Your task to perform on an android device: turn off picture-in-picture Image 0: 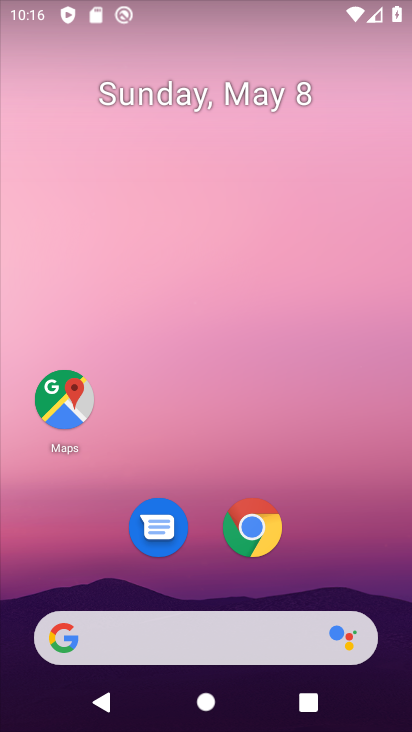
Step 0: drag from (323, 513) to (290, 135)
Your task to perform on an android device: turn off picture-in-picture Image 1: 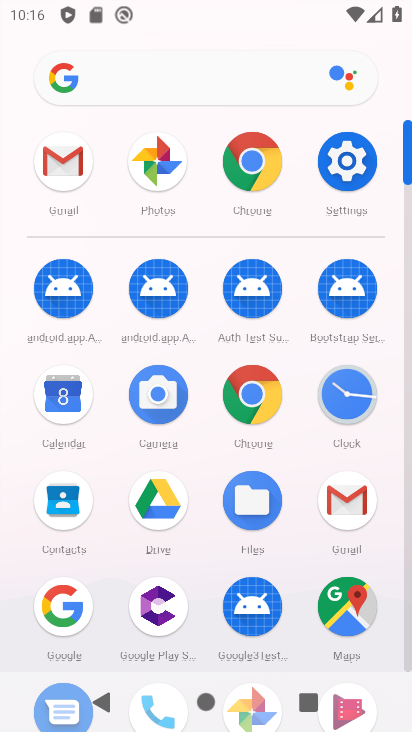
Step 1: click (364, 161)
Your task to perform on an android device: turn off picture-in-picture Image 2: 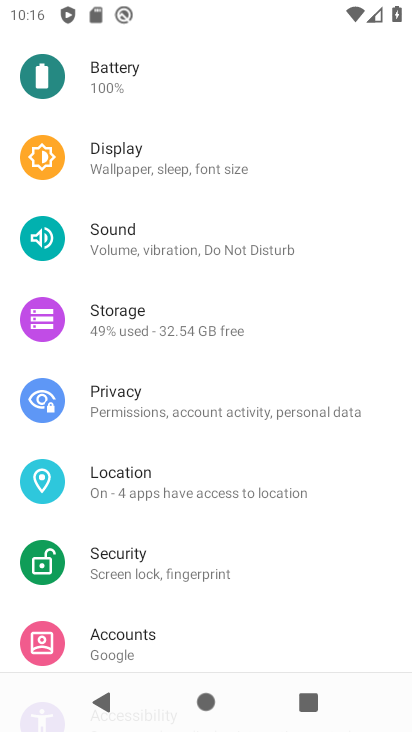
Step 2: drag from (297, 314) to (287, 580)
Your task to perform on an android device: turn off picture-in-picture Image 3: 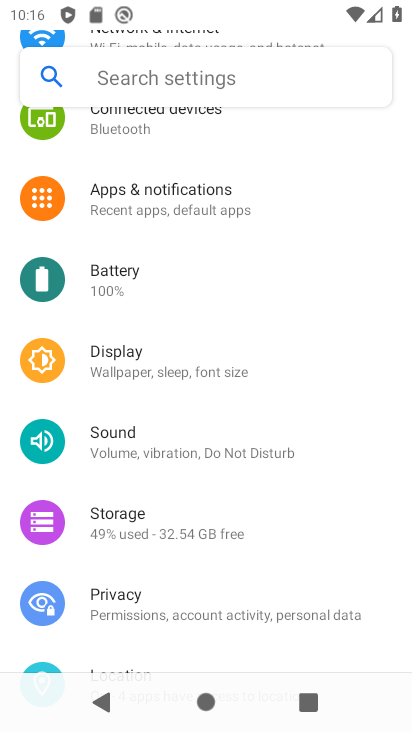
Step 3: click (269, 208)
Your task to perform on an android device: turn off picture-in-picture Image 4: 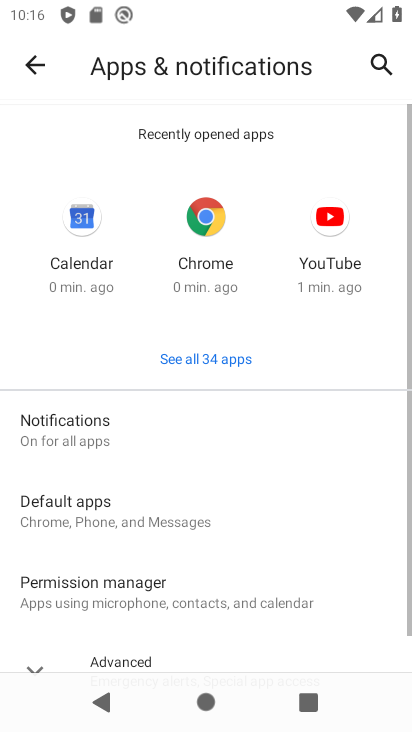
Step 4: drag from (266, 639) to (256, 140)
Your task to perform on an android device: turn off picture-in-picture Image 5: 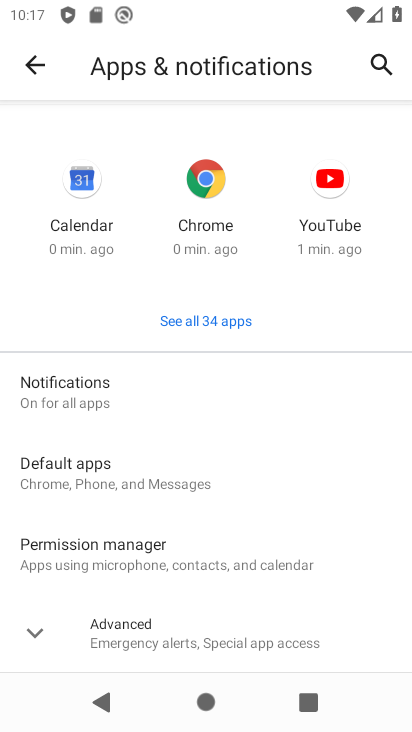
Step 5: click (36, 633)
Your task to perform on an android device: turn off picture-in-picture Image 6: 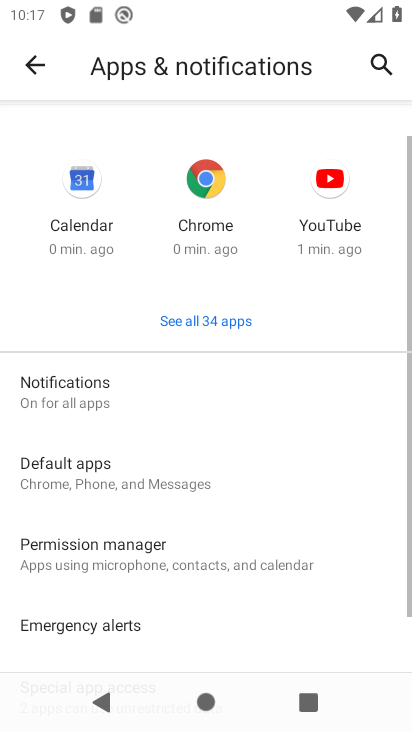
Step 6: drag from (256, 633) to (319, 243)
Your task to perform on an android device: turn off picture-in-picture Image 7: 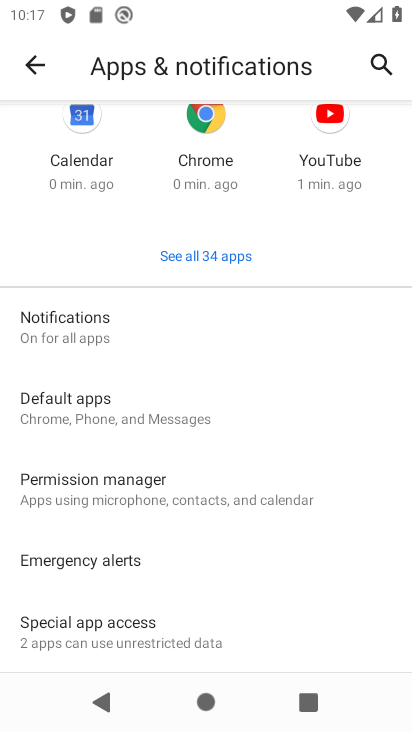
Step 7: click (149, 632)
Your task to perform on an android device: turn off picture-in-picture Image 8: 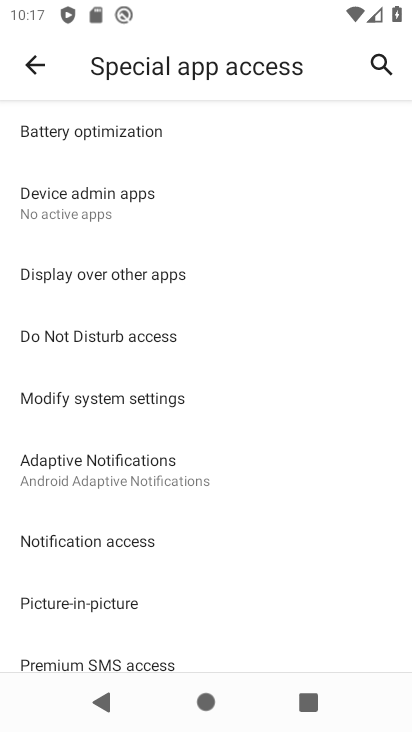
Step 8: click (119, 606)
Your task to perform on an android device: turn off picture-in-picture Image 9: 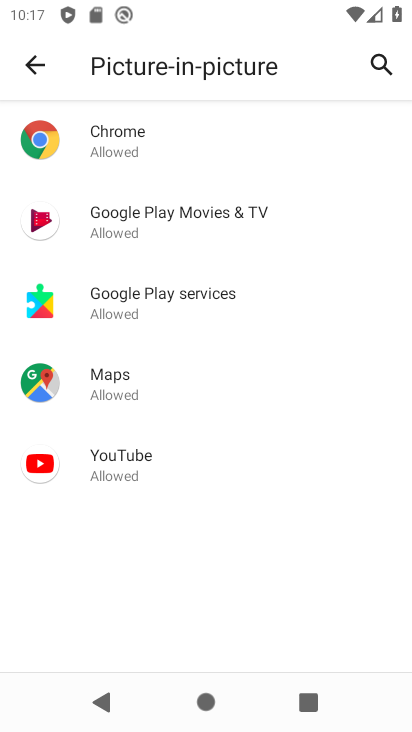
Step 9: click (139, 141)
Your task to perform on an android device: turn off picture-in-picture Image 10: 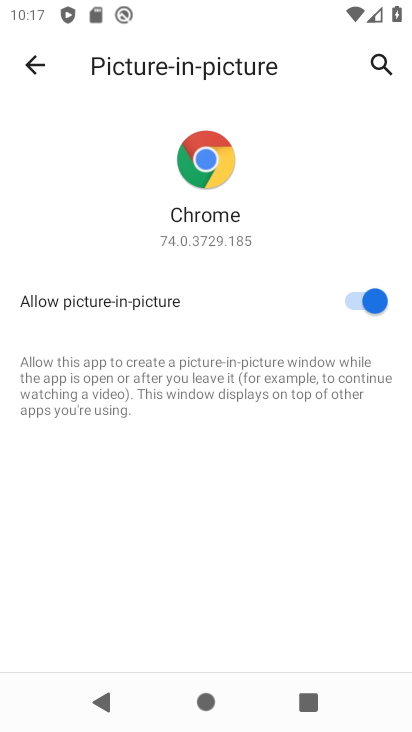
Step 10: click (364, 300)
Your task to perform on an android device: turn off picture-in-picture Image 11: 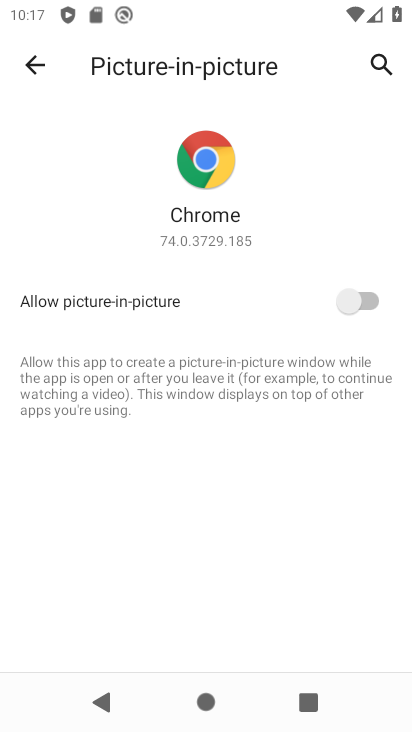
Step 11: task complete